Your task to perform on an android device: open the mobile data screen to see how much data has been used Image 0: 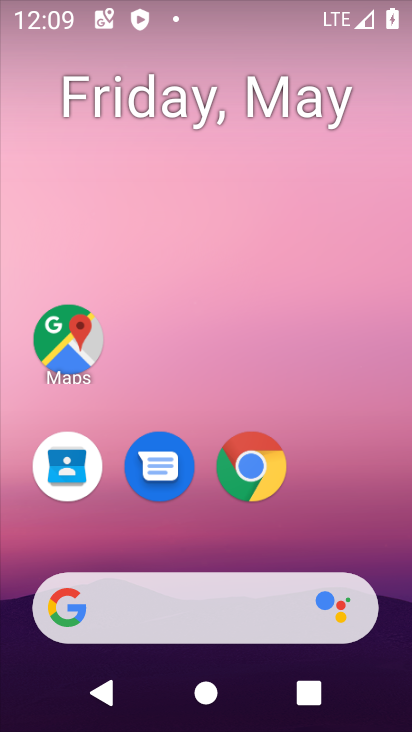
Step 0: drag from (275, 534) to (260, 0)
Your task to perform on an android device: open the mobile data screen to see how much data has been used Image 1: 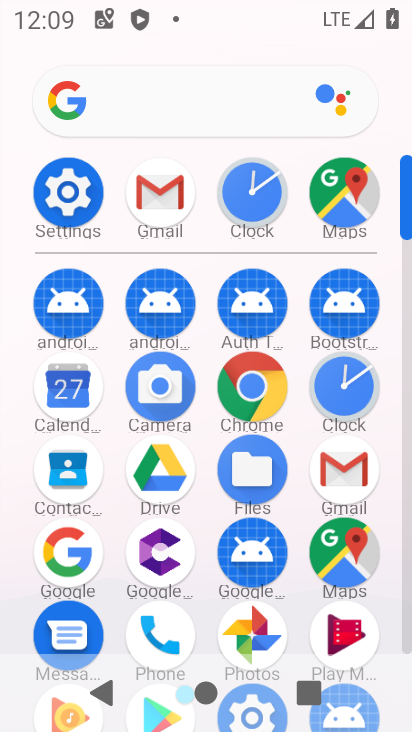
Step 1: click (73, 195)
Your task to perform on an android device: open the mobile data screen to see how much data has been used Image 2: 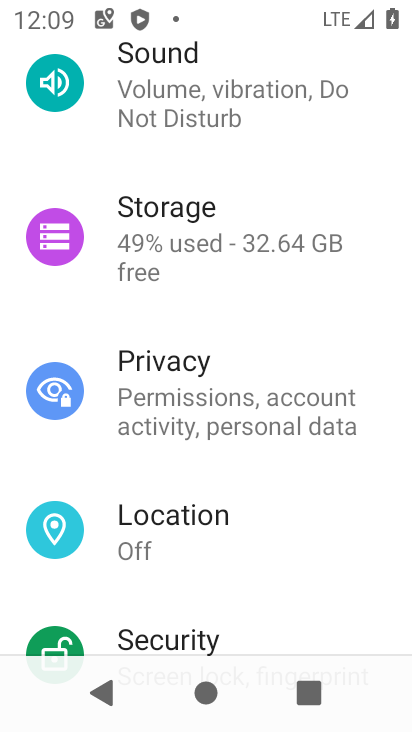
Step 2: drag from (214, 159) to (202, 548)
Your task to perform on an android device: open the mobile data screen to see how much data has been used Image 3: 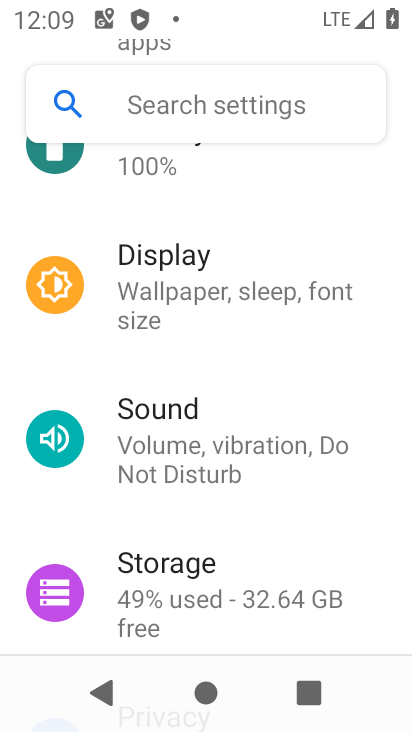
Step 3: drag from (238, 235) to (232, 637)
Your task to perform on an android device: open the mobile data screen to see how much data has been used Image 4: 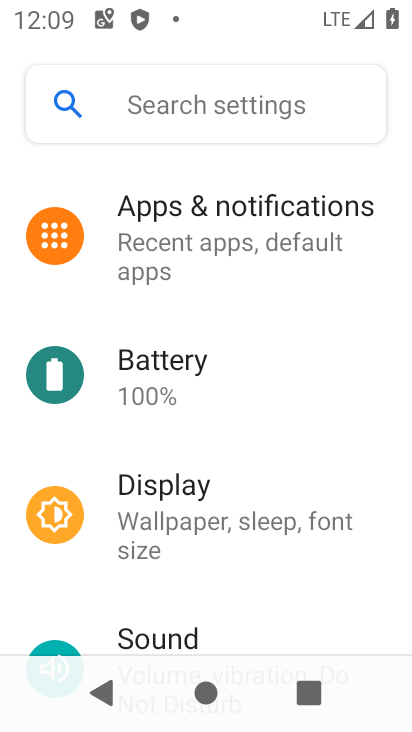
Step 4: drag from (224, 268) to (193, 685)
Your task to perform on an android device: open the mobile data screen to see how much data has been used Image 5: 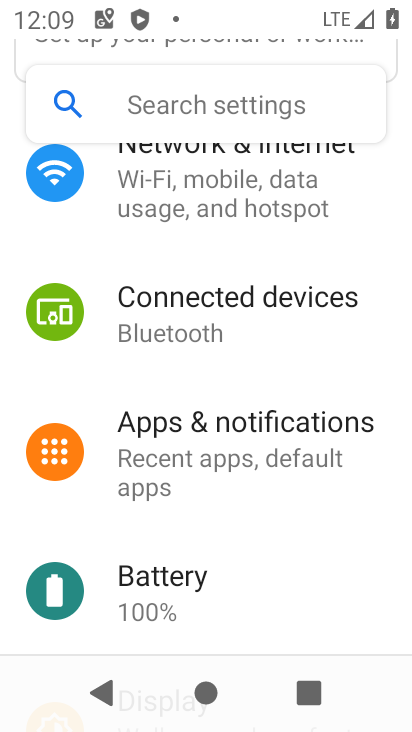
Step 5: click (229, 167)
Your task to perform on an android device: open the mobile data screen to see how much data has been used Image 6: 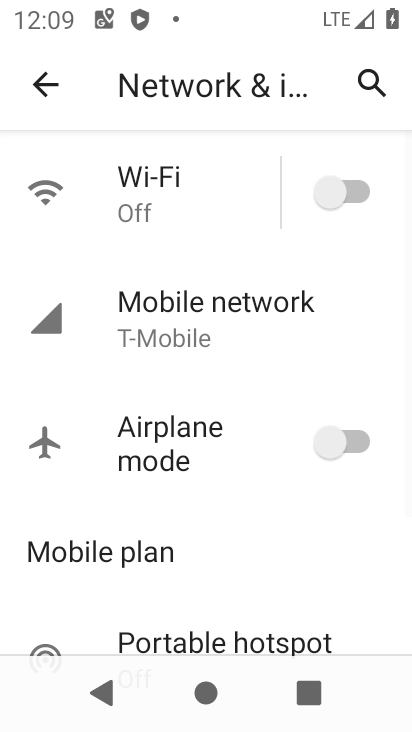
Step 6: click (203, 322)
Your task to perform on an android device: open the mobile data screen to see how much data has been used Image 7: 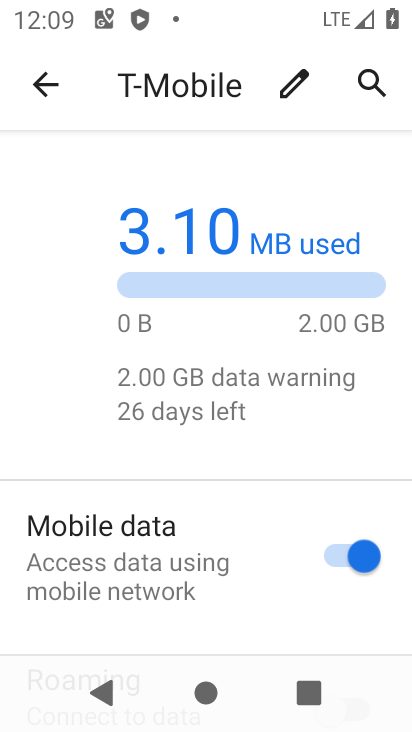
Step 7: press home button
Your task to perform on an android device: open the mobile data screen to see how much data has been used Image 8: 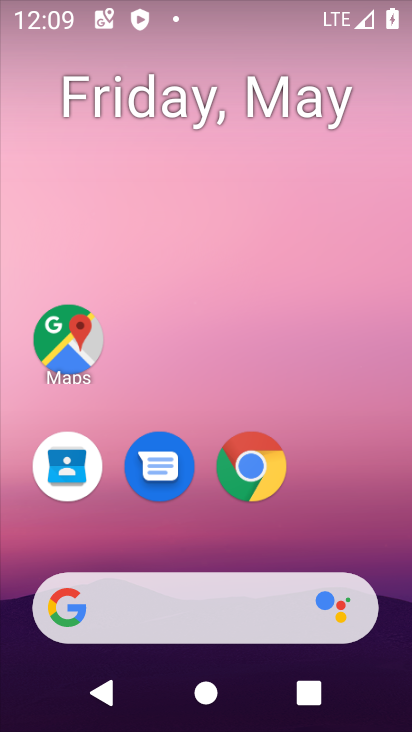
Step 8: drag from (172, 535) to (199, 160)
Your task to perform on an android device: open the mobile data screen to see how much data has been used Image 9: 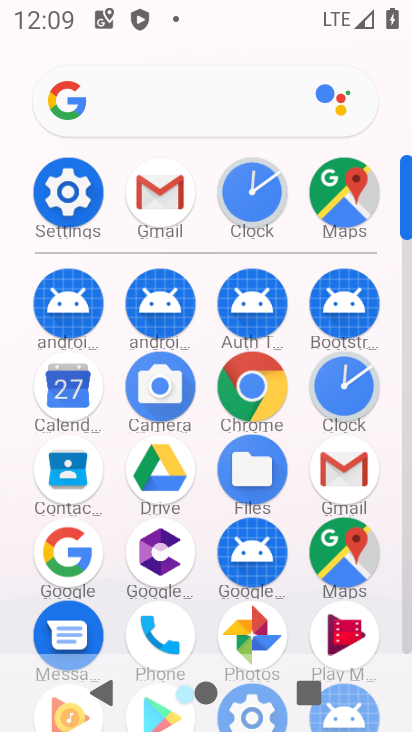
Step 9: click (71, 191)
Your task to perform on an android device: open the mobile data screen to see how much data has been used Image 10: 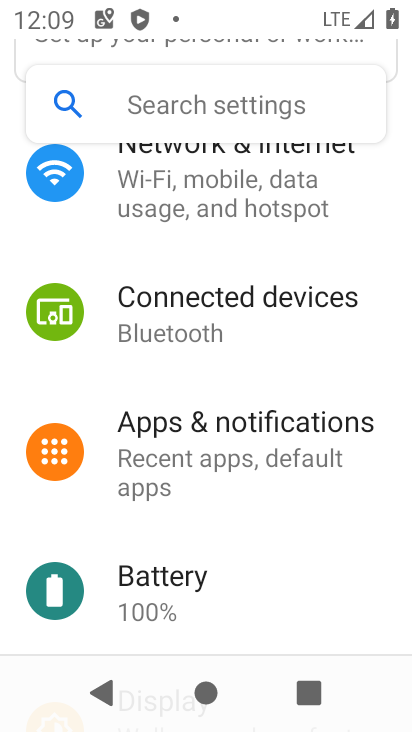
Step 10: click (204, 189)
Your task to perform on an android device: open the mobile data screen to see how much data has been used Image 11: 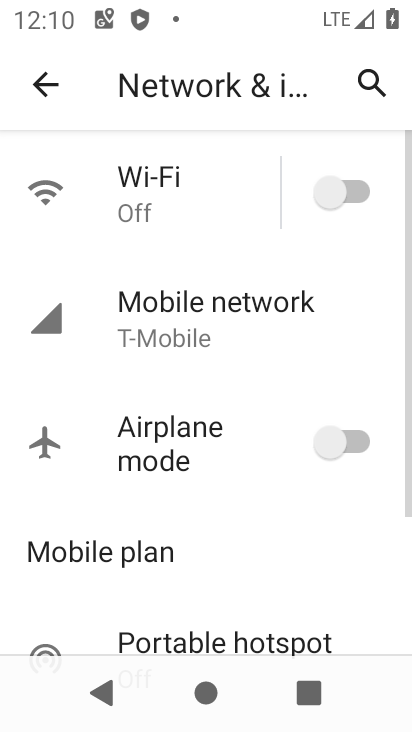
Step 11: click (202, 314)
Your task to perform on an android device: open the mobile data screen to see how much data has been used Image 12: 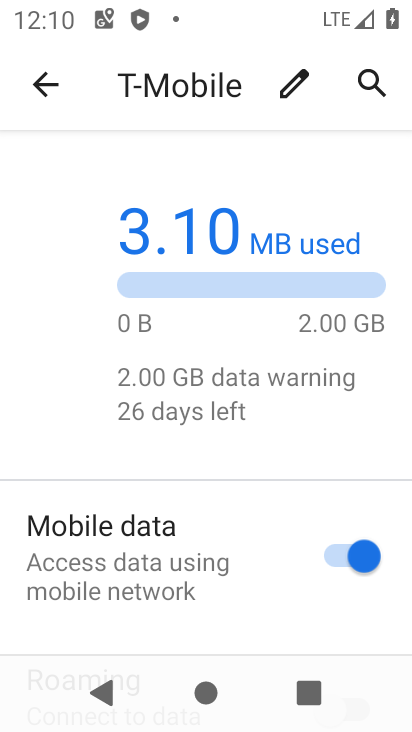
Step 12: task complete